Your task to perform on an android device: Turn on the flashlight Image 0: 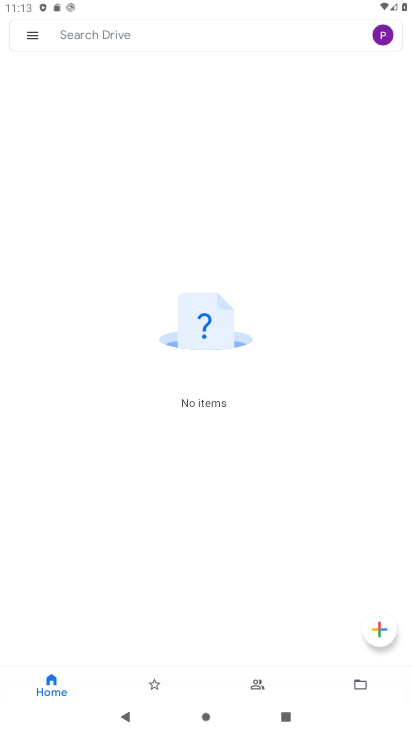
Step 0: press home button
Your task to perform on an android device: Turn on the flashlight Image 1: 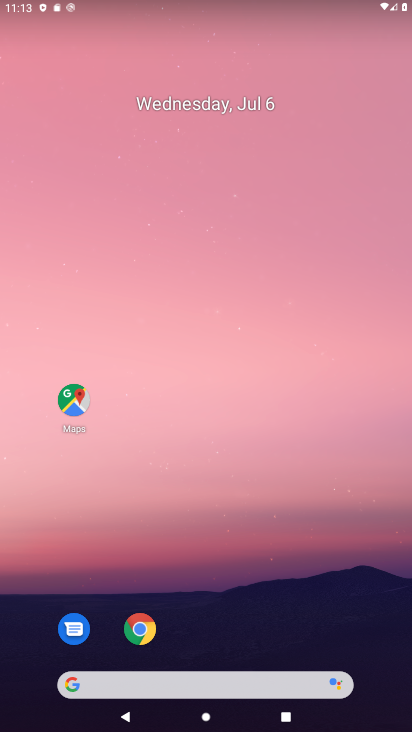
Step 1: drag from (234, 11) to (258, 483)
Your task to perform on an android device: Turn on the flashlight Image 2: 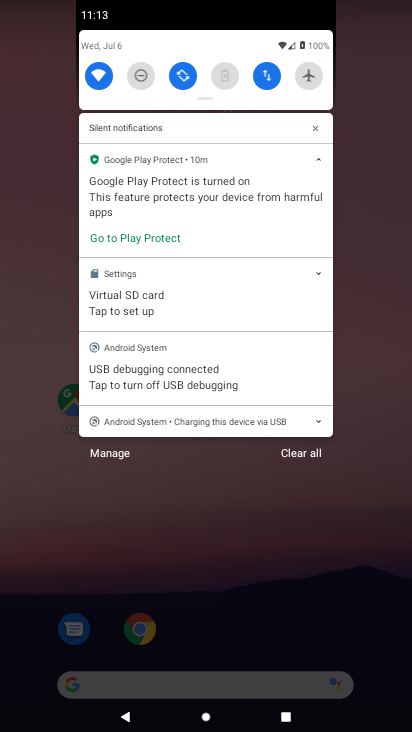
Step 2: drag from (204, 37) to (221, 334)
Your task to perform on an android device: Turn on the flashlight Image 3: 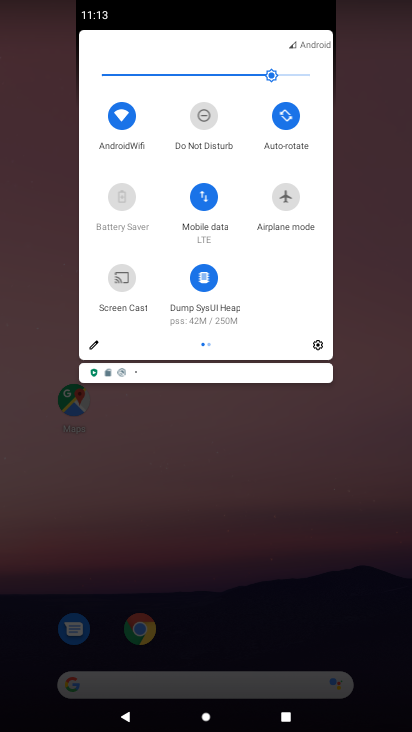
Step 3: click (102, 345)
Your task to perform on an android device: Turn on the flashlight Image 4: 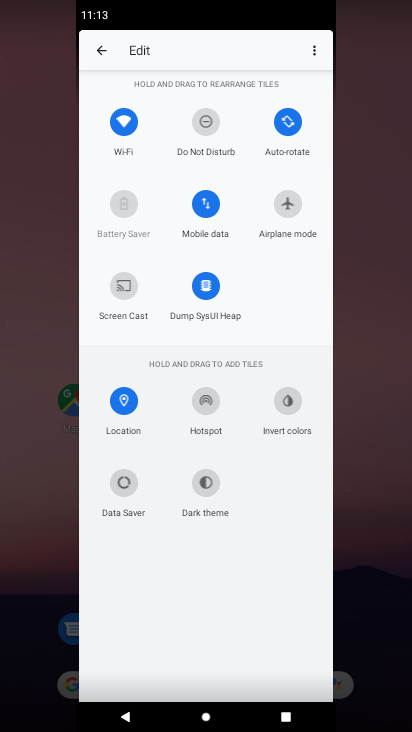
Step 4: task complete